Your task to perform on an android device: all mails in gmail Image 0: 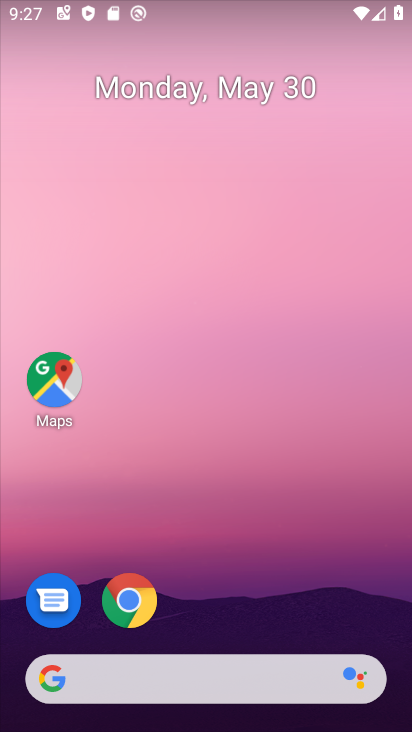
Step 0: drag from (258, 617) to (209, 128)
Your task to perform on an android device: all mails in gmail Image 1: 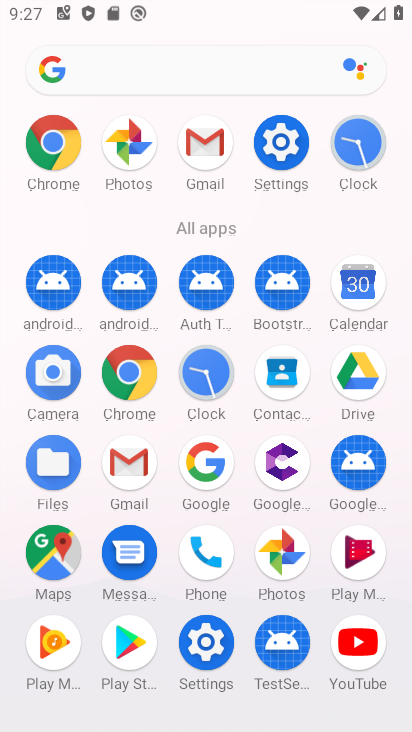
Step 1: click (201, 146)
Your task to perform on an android device: all mails in gmail Image 2: 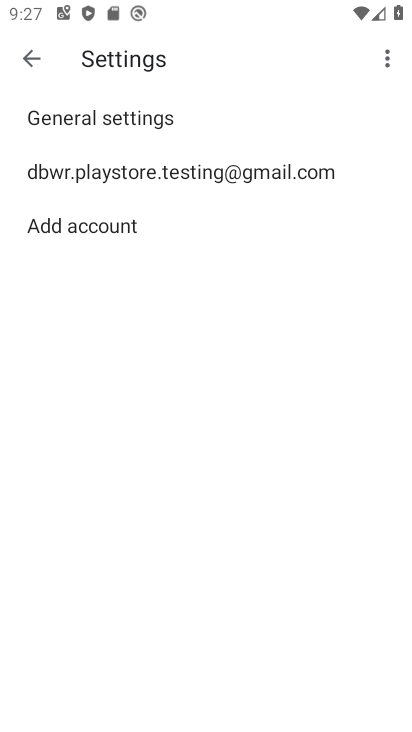
Step 2: click (24, 53)
Your task to perform on an android device: all mails in gmail Image 3: 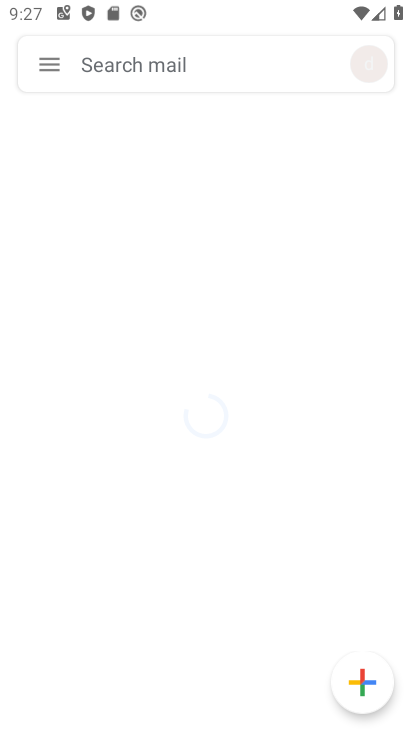
Step 3: click (47, 60)
Your task to perform on an android device: all mails in gmail Image 4: 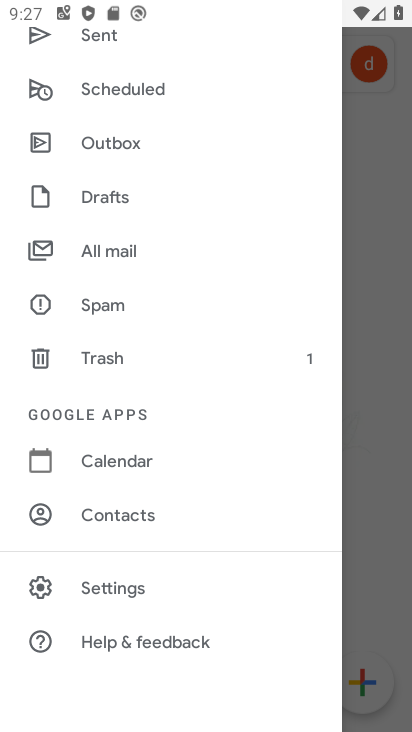
Step 4: click (113, 251)
Your task to perform on an android device: all mails in gmail Image 5: 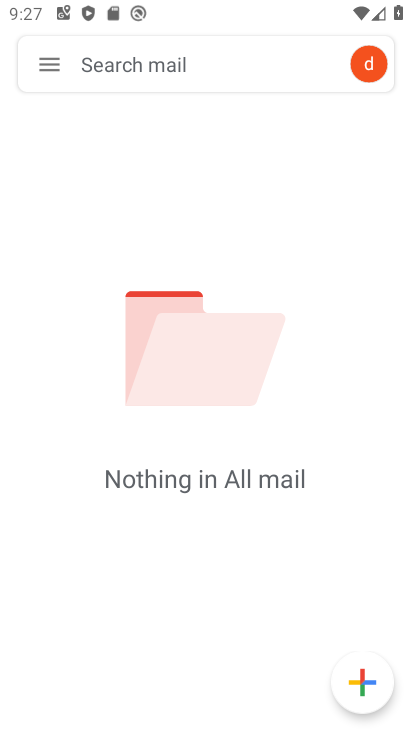
Step 5: task complete